Your task to perform on an android device: toggle translation in the chrome app Image 0: 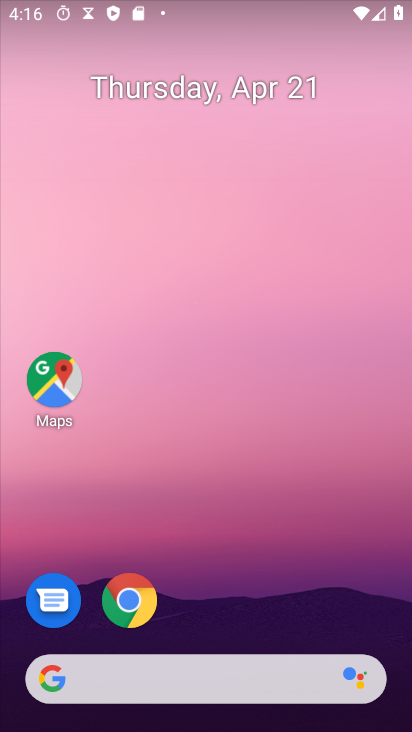
Step 0: click (130, 601)
Your task to perform on an android device: toggle translation in the chrome app Image 1: 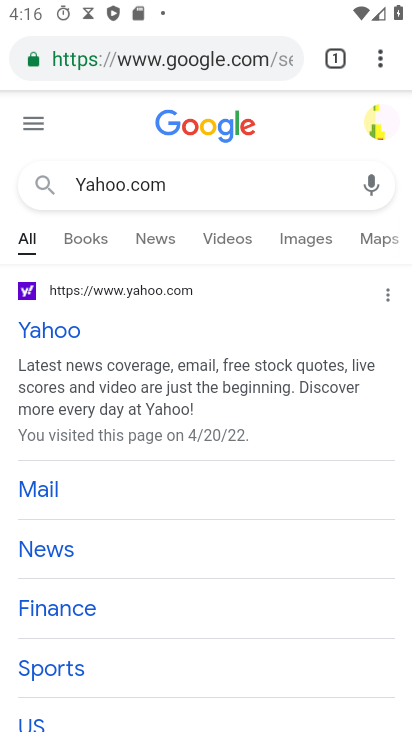
Step 1: click (392, 60)
Your task to perform on an android device: toggle translation in the chrome app Image 2: 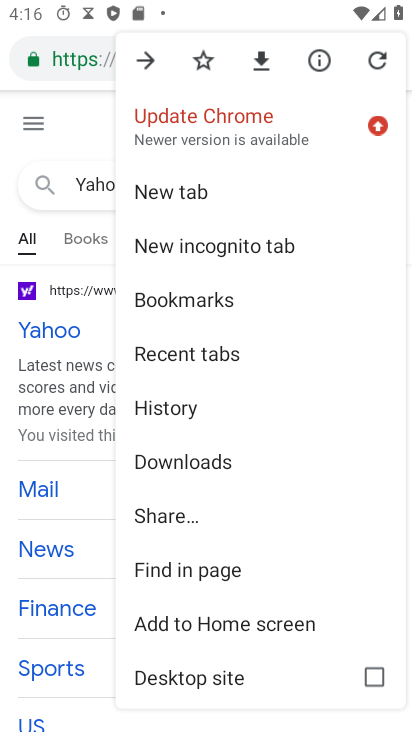
Step 2: drag from (248, 407) to (302, 303)
Your task to perform on an android device: toggle translation in the chrome app Image 3: 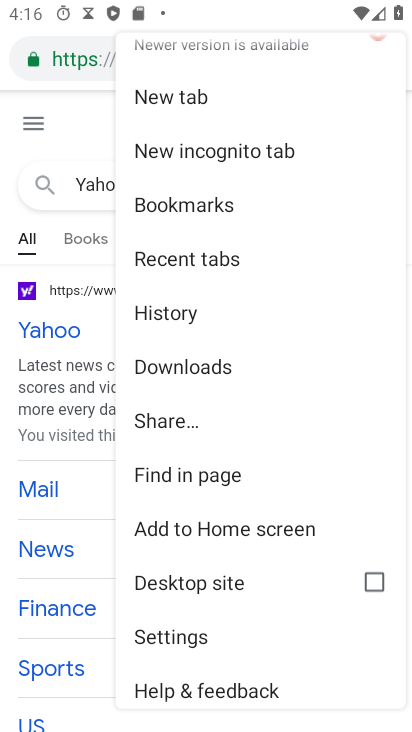
Step 3: click (176, 635)
Your task to perform on an android device: toggle translation in the chrome app Image 4: 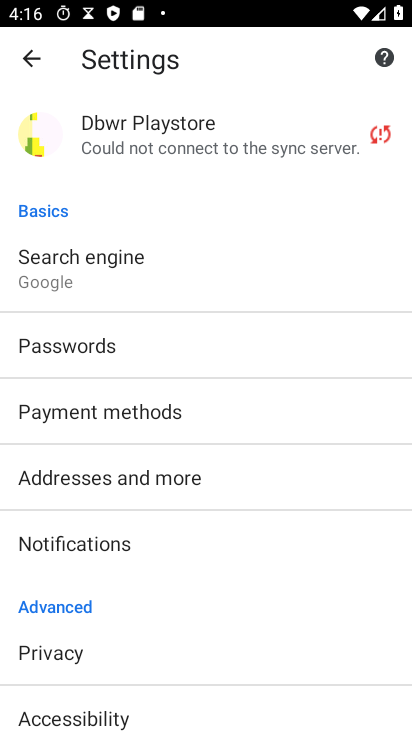
Step 4: drag from (194, 525) to (241, 413)
Your task to perform on an android device: toggle translation in the chrome app Image 5: 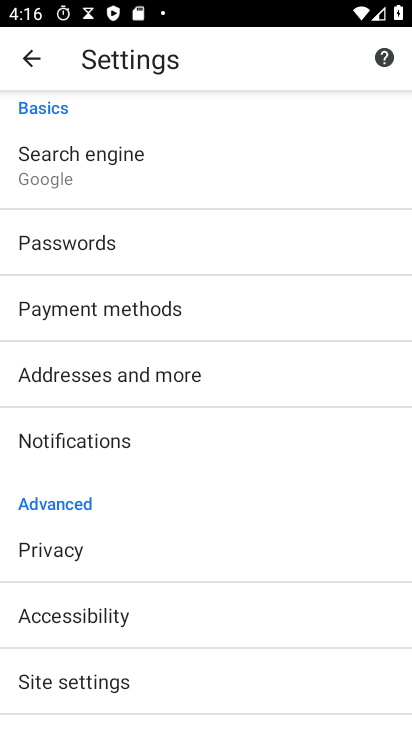
Step 5: drag from (176, 524) to (216, 424)
Your task to perform on an android device: toggle translation in the chrome app Image 6: 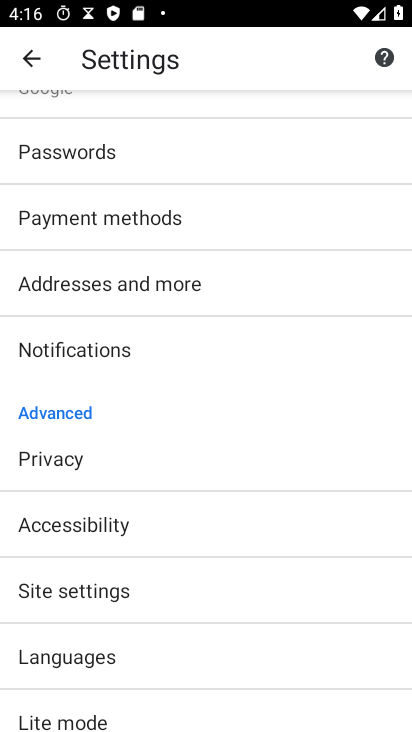
Step 6: drag from (152, 523) to (210, 441)
Your task to perform on an android device: toggle translation in the chrome app Image 7: 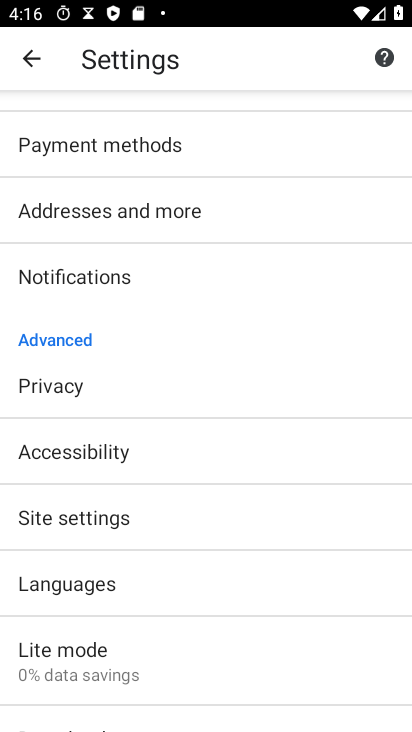
Step 7: click (97, 584)
Your task to perform on an android device: toggle translation in the chrome app Image 8: 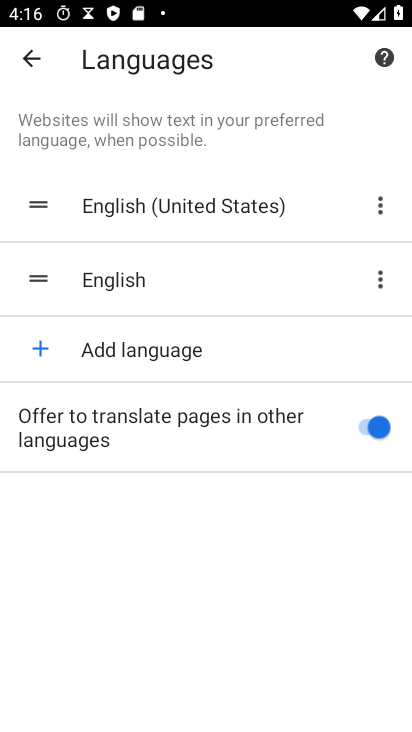
Step 8: click (381, 421)
Your task to perform on an android device: toggle translation in the chrome app Image 9: 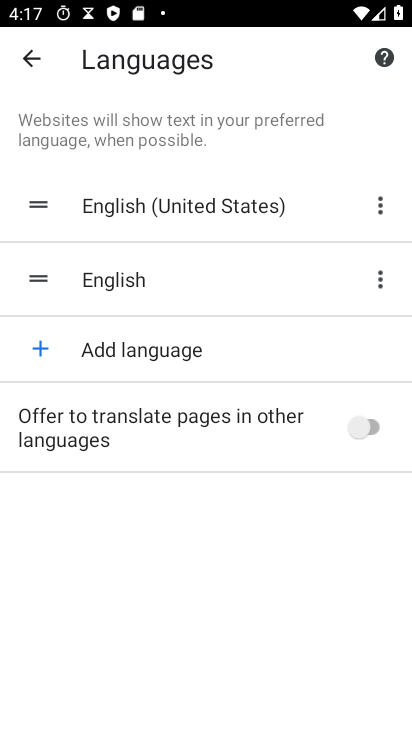
Step 9: task complete